Your task to perform on an android device: Clear the shopping cart on walmart. Search for razer kraken on walmart, select the first entry, add it to the cart, then select checkout. Image 0: 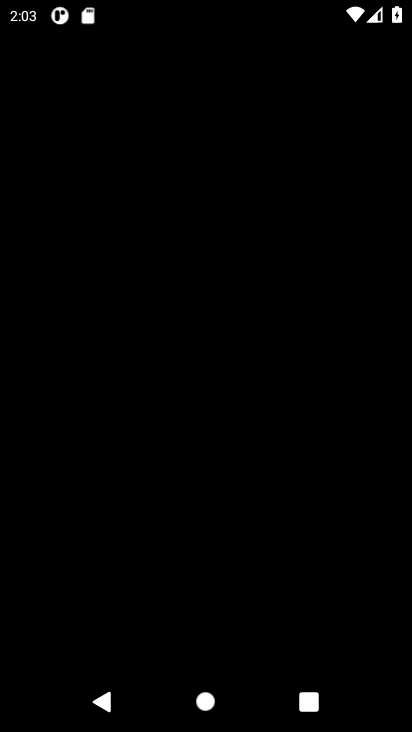
Step 0: press home button
Your task to perform on an android device: Clear the shopping cart on walmart. Search for razer kraken on walmart, select the first entry, add it to the cart, then select checkout. Image 1: 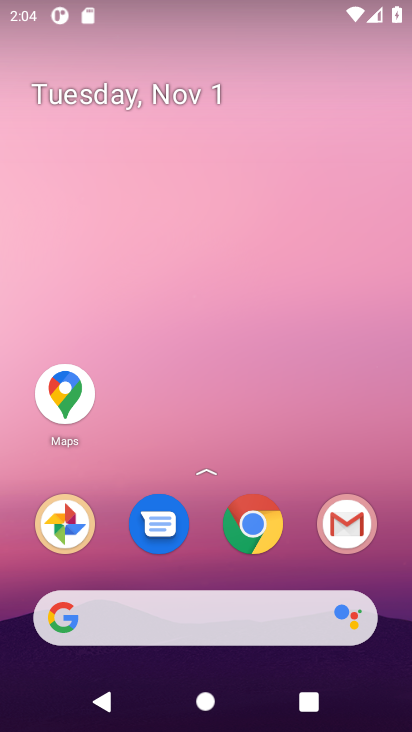
Step 1: click (256, 522)
Your task to perform on an android device: Clear the shopping cart on walmart. Search for razer kraken on walmart, select the first entry, add it to the cart, then select checkout. Image 2: 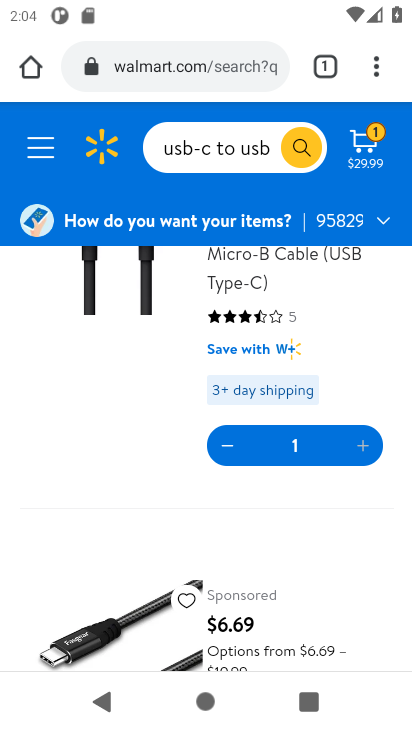
Step 2: click (178, 46)
Your task to perform on an android device: Clear the shopping cart on walmart. Search for razer kraken on walmart, select the first entry, add it to the cart, then select checkout. Image 3: 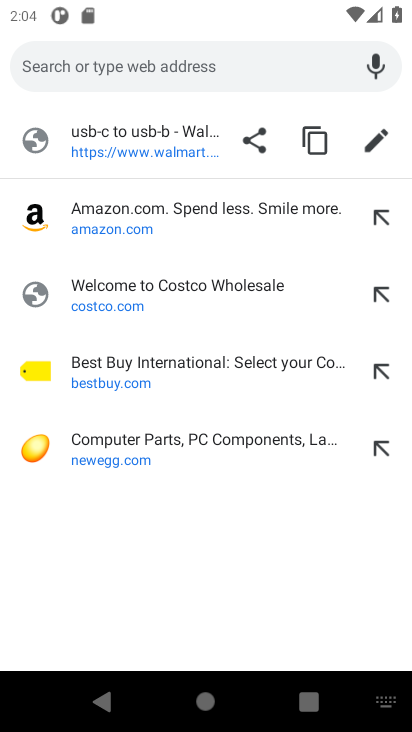
Step 3: type "walmart"
Your task to perform on an android device: Clear the shopping cart on walmart. Search for razer kraken on walmart, select the first entry, add it to the cart, then select checkout. Image 4: 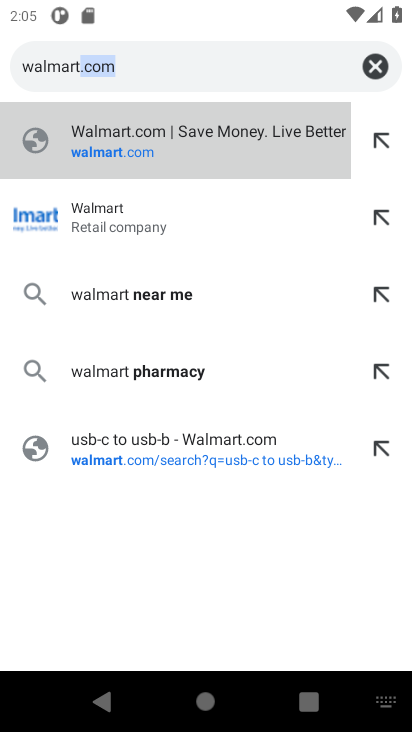
Step 4: click (97, 211)
Your task to perform on an android device: Clear the shopping cart on walmart. Search for razer kraken on walmart, select the first entry, add it to the cart, then select checkout. Image 5: 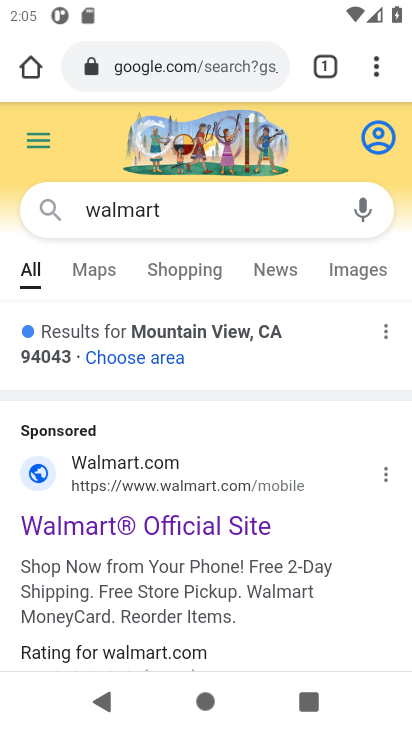
Step 5: click (88, 459)
Your task to perform on an android device: Clear the shopping cart on walmart. Search for razer kraken on walmart, select the first entry, add it to the cart, then select checkout. Image 6: 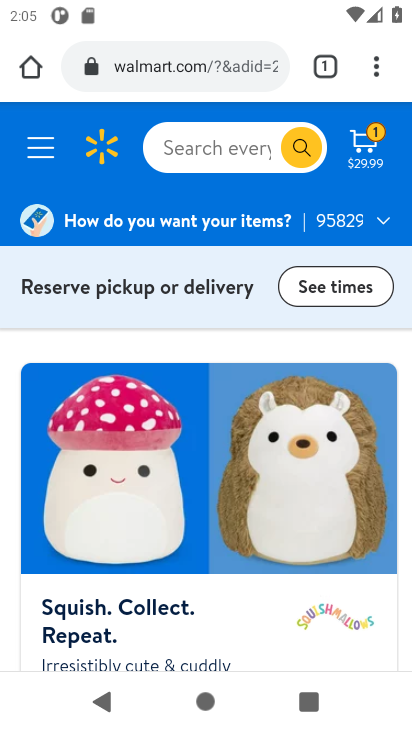
Step 6: click (372, 138)
Your task to perform on an android device: Clear the shopping cart on walmart. Search for razer kraken on walmart, select the first entry, add it to the cart, then select checkout. Image 7: 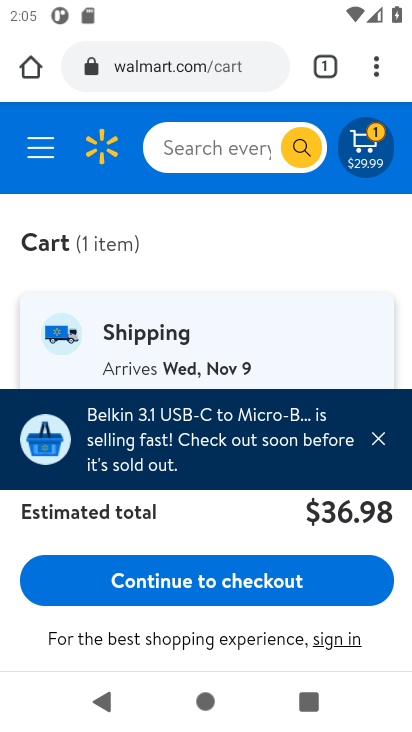
Step 7: click (377, 440)
Your task to perform on an android device: Clear the shopping cart on walmart. Search for razer kraken on walmart, select the first entry, add it to the cart, then select checkout. Image 8: 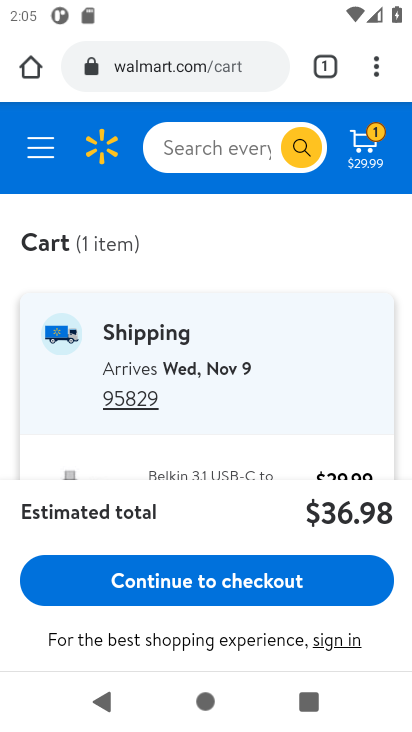
Step 8: drag from (311, 434) to (285, 113)
Your task to perform on an android device: Clear the shopping cart on walmart. Search for razer kraken on walmart, select the first entry, add it to the cart, then select checkout. Image 9: 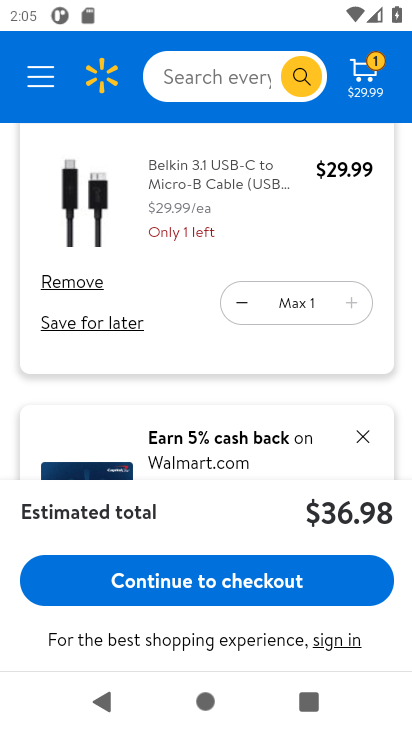
Step 9: click (54, 278)
Your task to perform on an android device: Clear the shopping cart on walmart. Search for razer kraken on walmart, select the first entry, add it to the cart, then select checkout. Image 10: 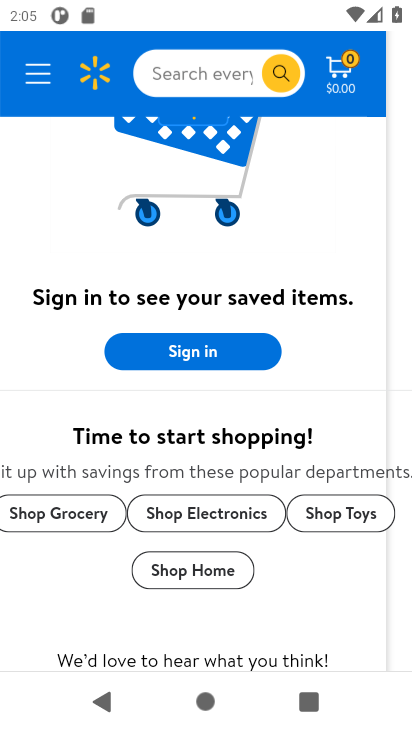
Step 10: click (175, 65)
Your task to perform on an android device: Clear the shopping cart on walmart. Search for razer kraken on walmart, select the first entry, add it to the cart, then select checkout. Image 11: 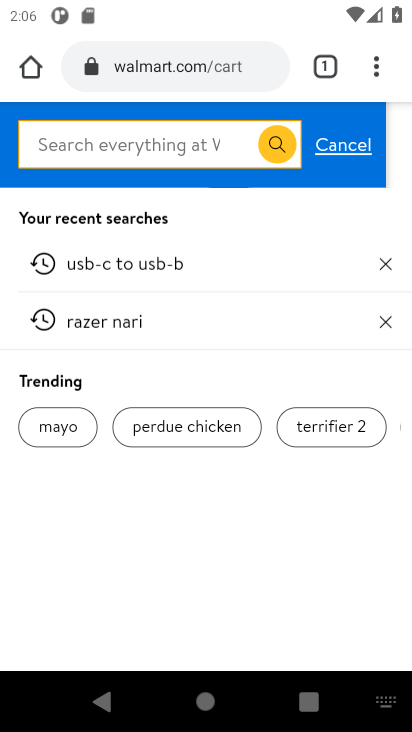
Step 11: type "razer kraken"
Your task to perform on an android device: Clear the shopping cart on walmart. Search for razer kraken on walmart, select the first entry, add it to the cart, then select checkout. Image 12: 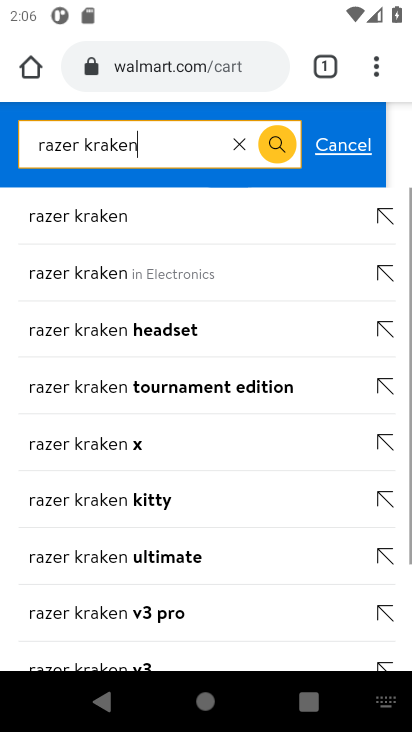
Step 12: click (53, 214)
Your task to perform on an android device: Clear the shopping cart on walmart. Search for razer kraken on walmart, select the first entry, add it to the cart, then select checkout. Image 13: 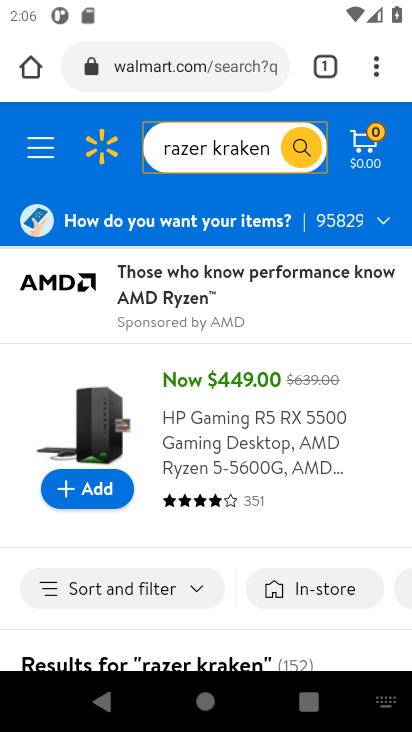
Step 13: drag from (231, 550) to (212, 273)
Your task to perform on an android device: Clear the shopping cart on walmart. Search for razer kraken on walmart, select the first entry, add it to the cart, then select checkout. Image 14: 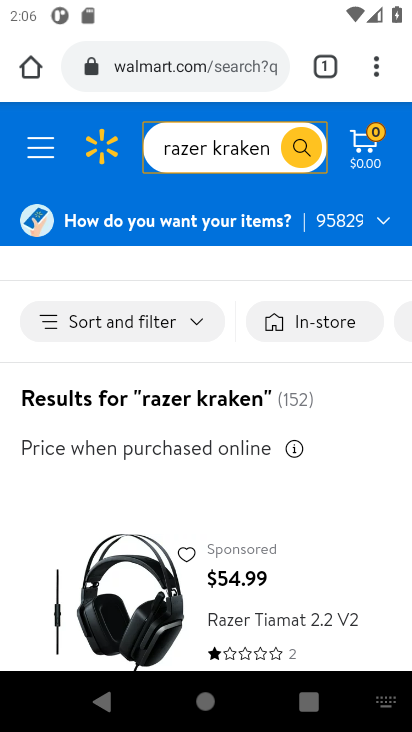
Step 14: drag from (232, 534) to (217, 298)
Your task to perform on an android device: Clear the shopping cart on walmart. Search for razer kraken on walmart, select the first entry, add it to the cart, then select checkout. Image 15: 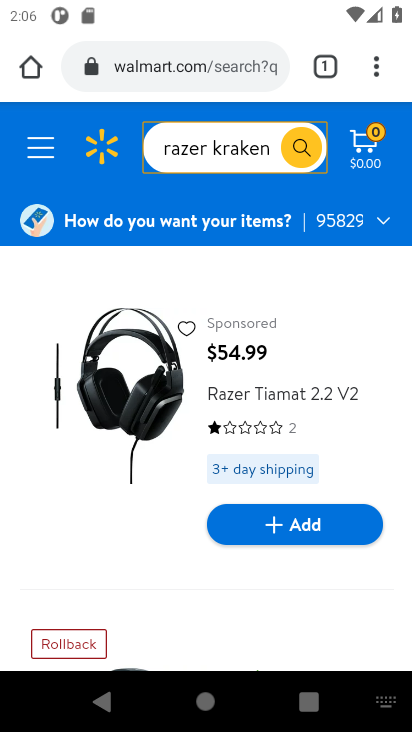
Step 15: drag from (187, 588) to (172, 252)
Your task to perform on an android device: Clear the shopping cart on walmart. Search for razer kraken on walmart, select the first entry, add it to the cart, then select checkout. Image 16: 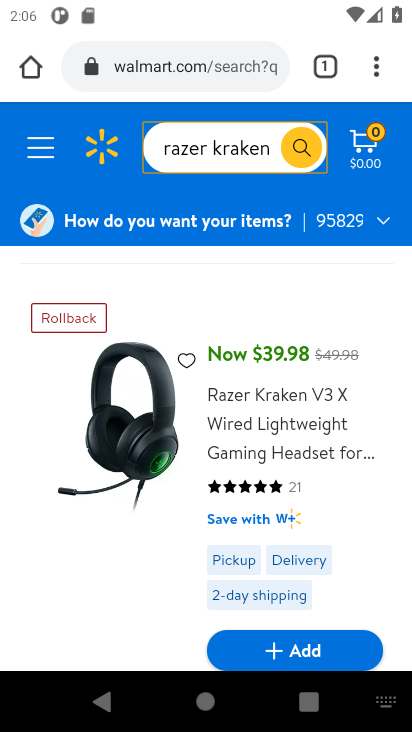
Step 16: drag from (187, 537) to (181, 731)
Your task to perform on an android device: Clear the shopping cart on walmart. Search for razer kraken on walmart, select the first entry, add it to the cart, then select checkout. Image 17: 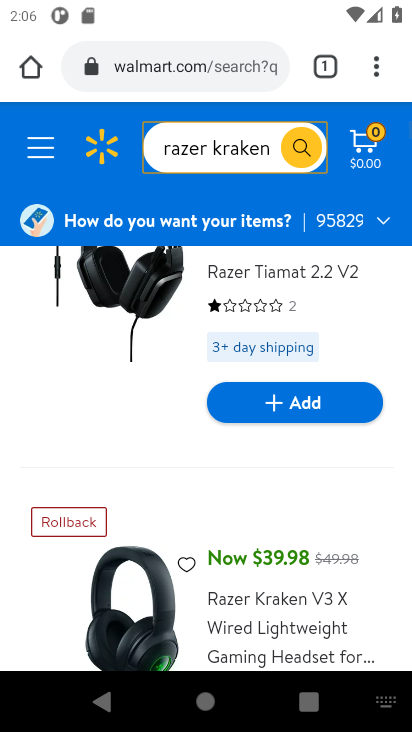
Step 17: drag from (145, 347) to (169, 402)
Your task to perform on an android device: Clear the shopping cart on walmart. Search for razer kraken on walmart, select the first entry, add it to the cart, then select checkout. Image 18: 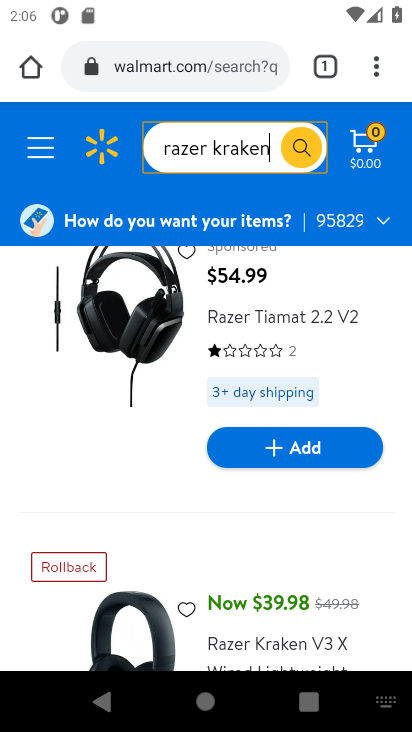
Step 18: drag from (176, 678) to (173, 255)
Your task to perform on an android device: Clear the shopping cart on walmart. Search for razer kraken on walmart, select the first entry, add it to the cart, then select checkout. Image 19: 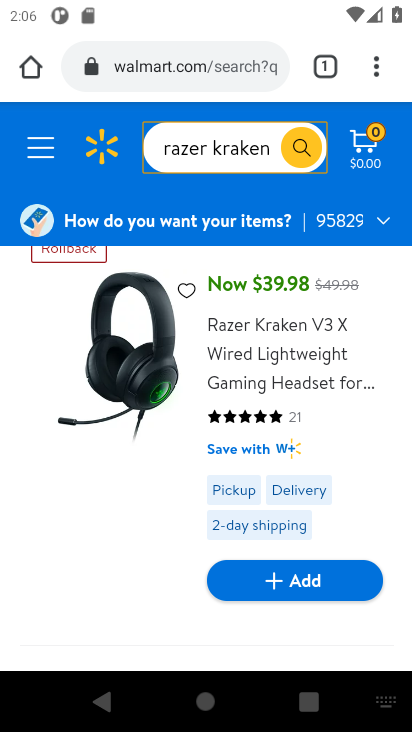
Step 19: click (270, 577)
Your task to perform on an android device: Clear the shopping cart on walmart. Search for razer kraken on walmart, select the first entry, add it to the cart, then select checkout. Image 20: 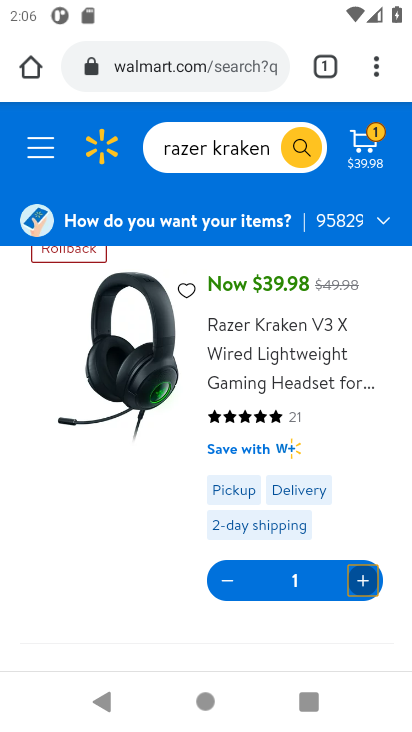
Step 20: click (365, 137)
Your task to perform on an android device: Clear the shopping cart on walmart. Search for razer kraken on walmart, select the first entry, add it to the cart, then select checkout. Image 21: 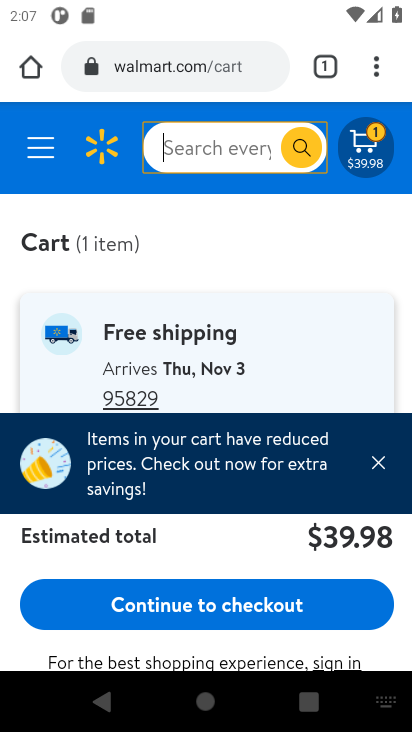
Step 21: click (375, 463)
Your task to perform on an android device: Clear the shopping cart on walmart. Search for razer kraken on walmart, select the first entry, add it to the cart, then select checkout. Image 22: 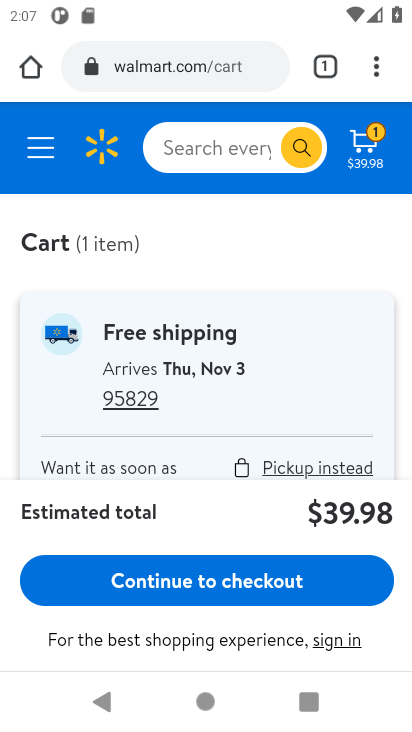
Step 22: drag from (303, 438) to (292, 173)
Your task to perform on an android device: Clear the shopping cart on walmart. Search for razer kraken on walmart, select the first entry, add it to the cart, then select checkout. Image 23: 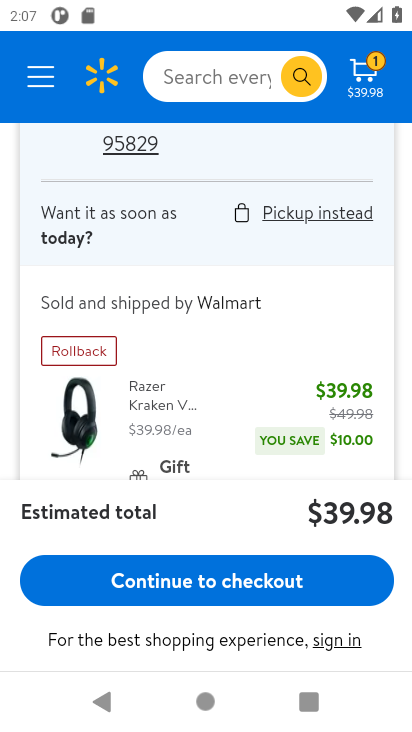
Step 23: drag from (229, 468) to (243, 263)
Your task to perform on an android device: Clear the shopping cart on walmart. Search for razer kraken on walmart, select the first entry, add it to the cart, then select checkout. Image 24: 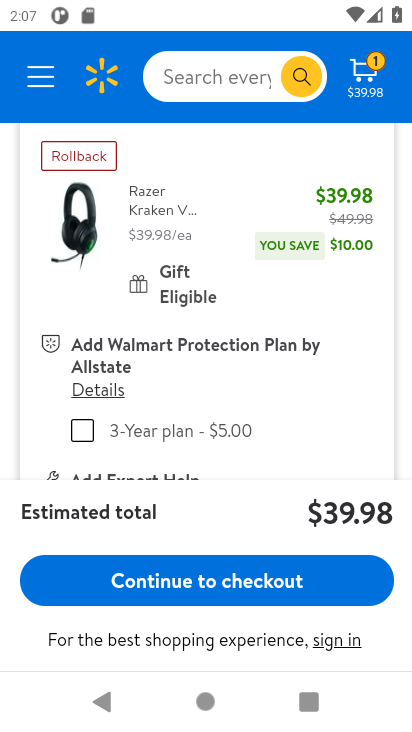
Step 24: click (173, 574)
Your task to perform on an android device: Clear the shopping cart on walmart. Search for razer kraken on walmart, select the first entry, add it to the cart, then select checkout. Image 25: 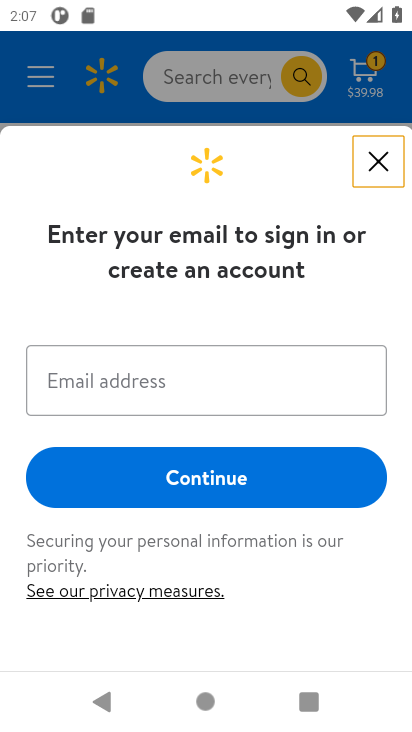
Step 25: task complete